Your task to perform on an android device: toggle location history Image 0: 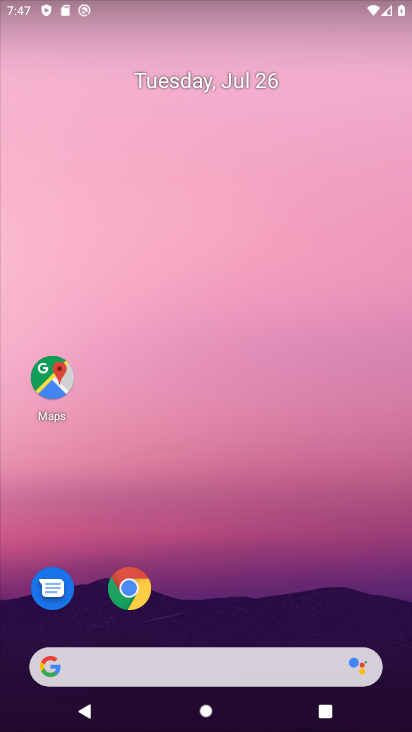
Step 0: drag from (324, 623) to (301, 89)
Your task to perform on an android device: toggle location history Image 1: 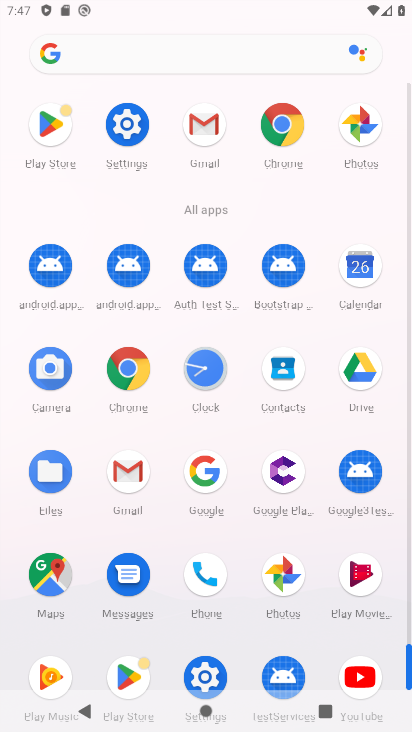
Step 1: click (121, 127)
Your task to perform on an android device: toggle location history Image 2: 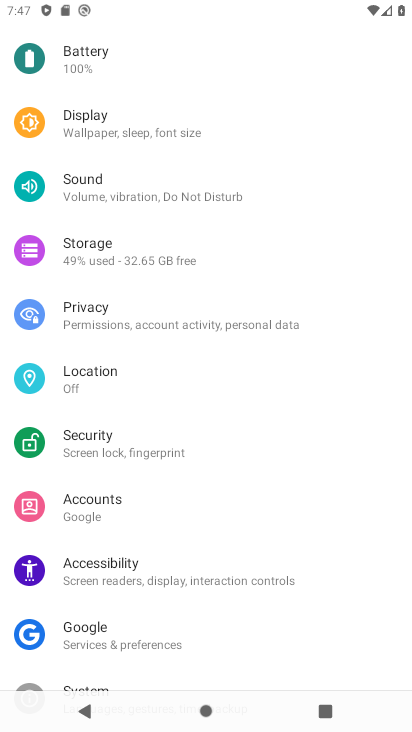
Step 2: click (99, 391)
Your task to perform on an android device: toggle location history Image 3: 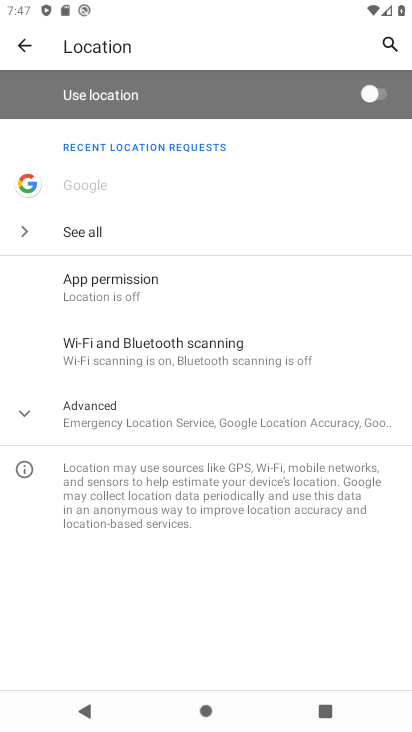
Step 3: click (158, 408)
Your task to perform on an android device: toggle location history Image 4: 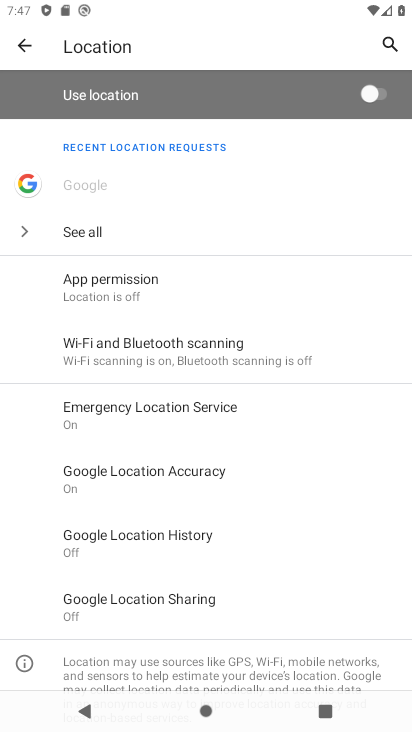
Step 4: click (118, 542)
Your task to perform on an android device: toggle location history Image 5: 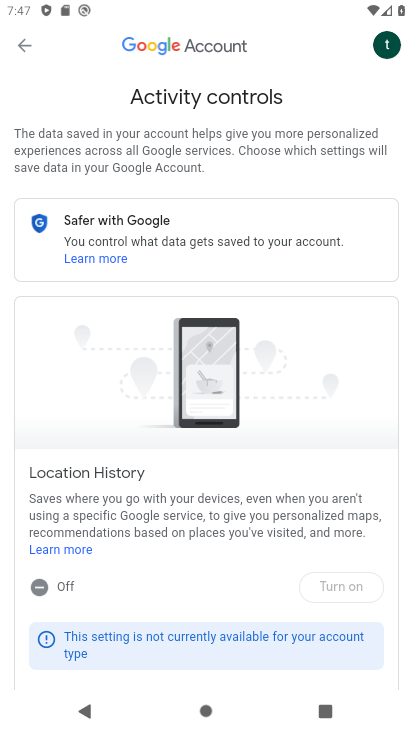
Step 5: task complete